Your task to perform on an android device: refresh tabs in the chrome app Image 0: 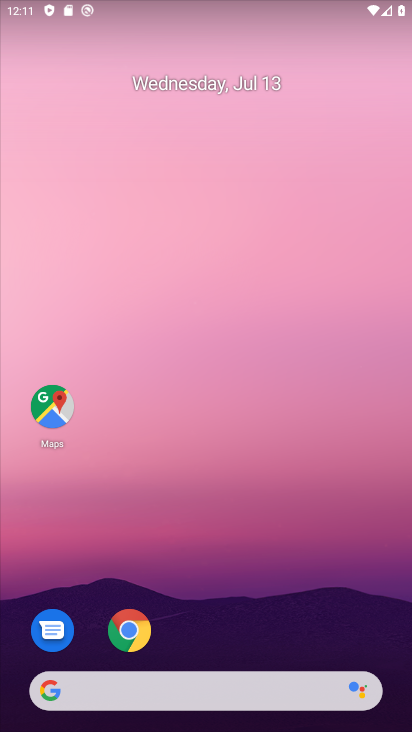
Step 0: click (118, 648)
Your task to perform on an android device: refresh tabs in the chrome app Image 1: 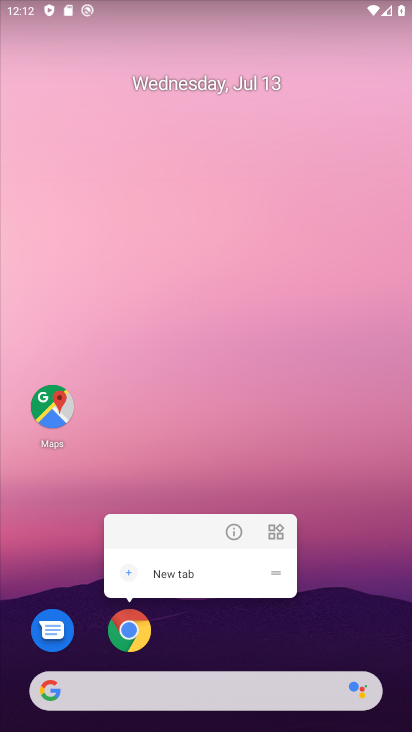
Step 1: click (122, 633)
Your task to perform on an android device: refresh tabs in the chrome app Image 2: 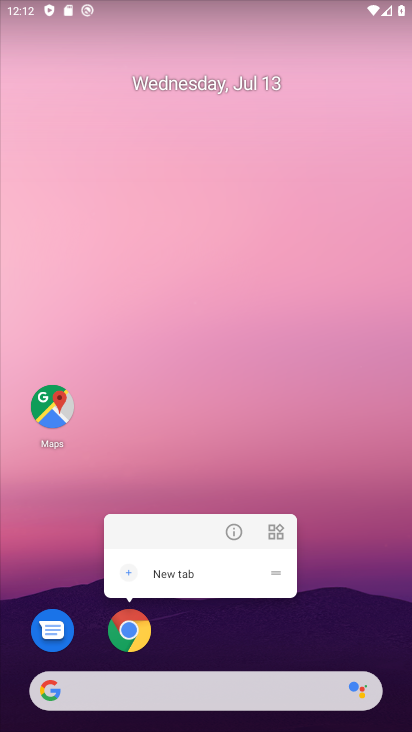
Step 2: click (122, 632)
Your task to perform on an android device: refresh tabs in the chrome app Image 3: 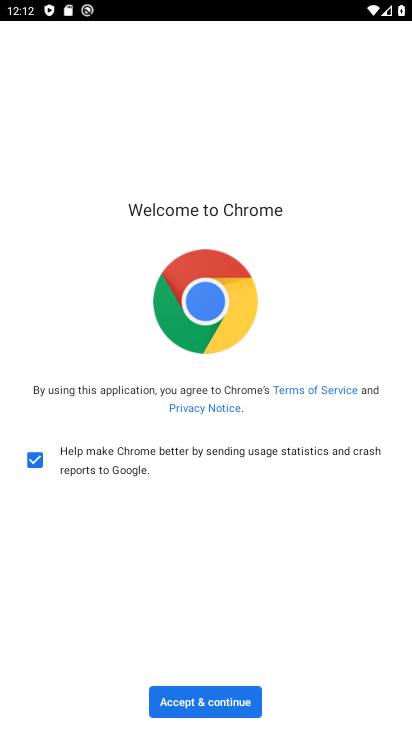
Step 3: click (197, 709)
Your task to perform on an android device: refresh tabs in the chrome app Image 4: 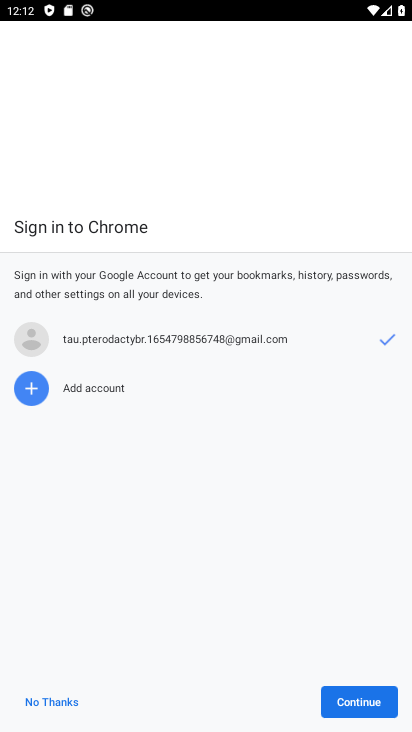
Step 4: click (327, 700)
Your task to perform on an android device: refresh tabs in the chrome app Image 5: 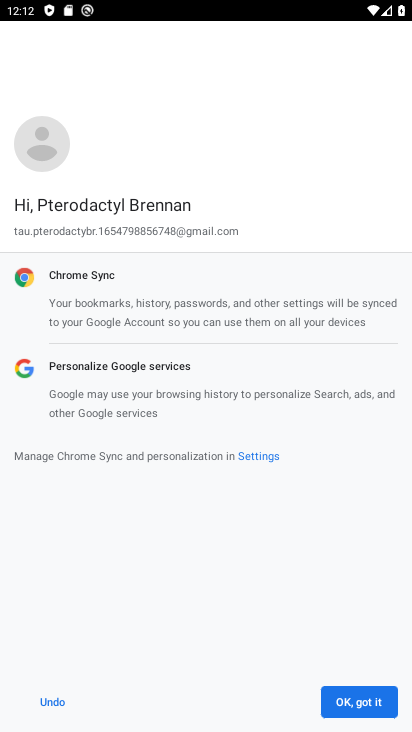
Step 5: click (345, 702)
Your task to perform on an android device: refresh tabs in the chrome app Image 6: 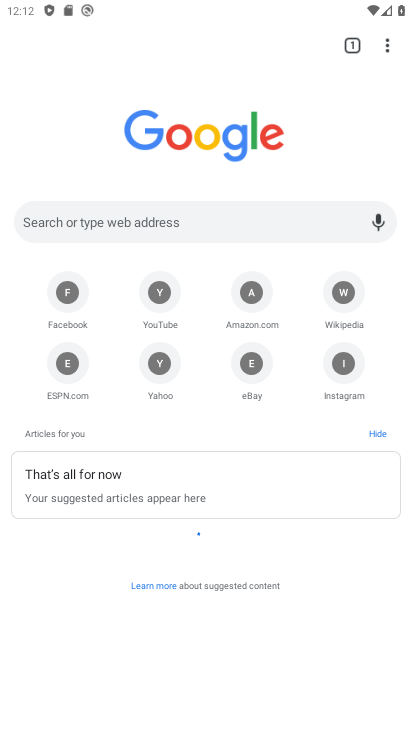
Step 6: click (387, 44)
Your task to perform on an android device: refresh tabs in the chrome app Image 7: 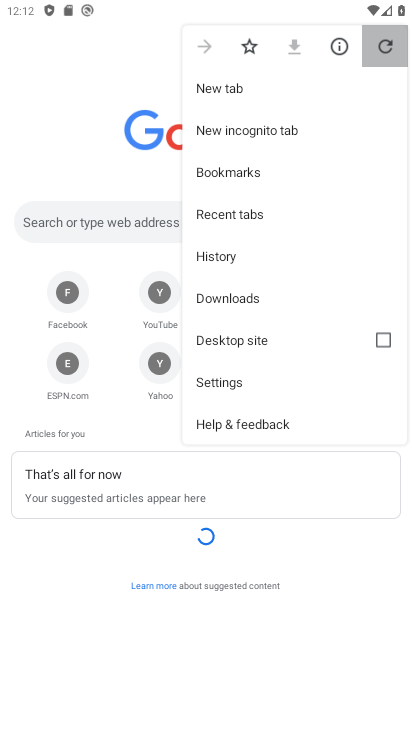
Step 7: click (390, 44)
Your task to perform on an android device: refresh tabs in the chrome app Image 8: 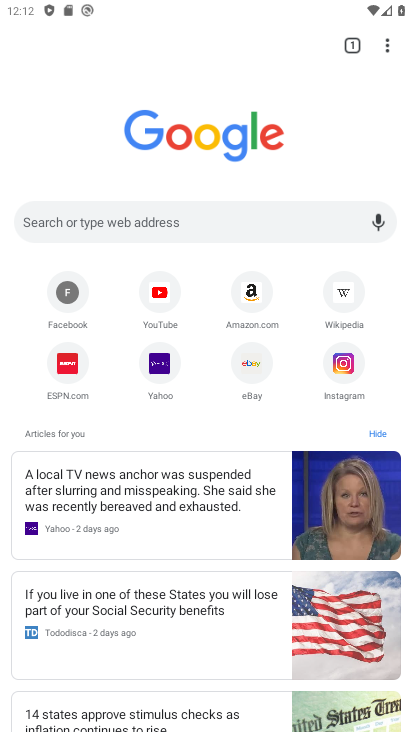
Step 8: task complete